Your task to perform on an android device: change timer sound Image 0: 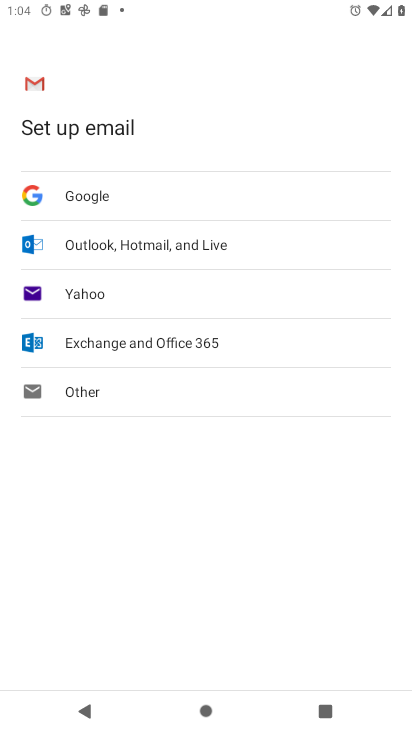
Step 0: press home button
Your task to perform on an android device: change timer sound Image 1: 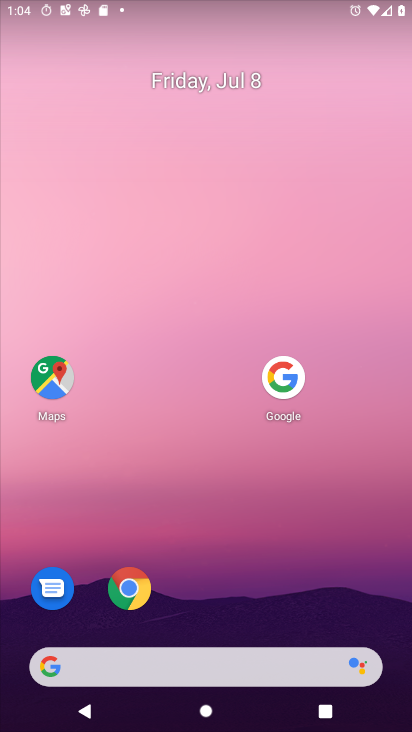
Step 1: drag from (172, 620) to (359, 71)
Your task to perform on an android device: change timer sound Image 2: 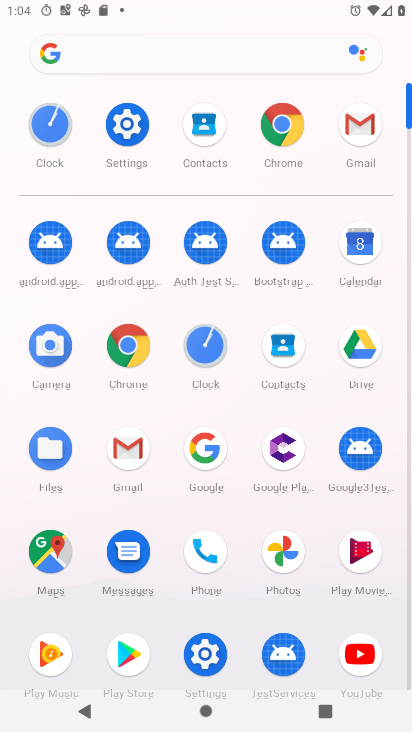
Step 2: click (214, 334)
Your task to perform on an android device: change timer sound Image 3: 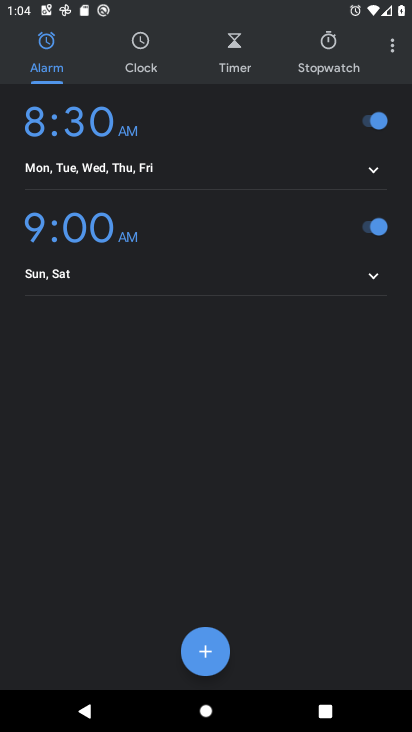
Step 3: click (392, 45)
Your task to perform on an android device: change timer sound Image 4: 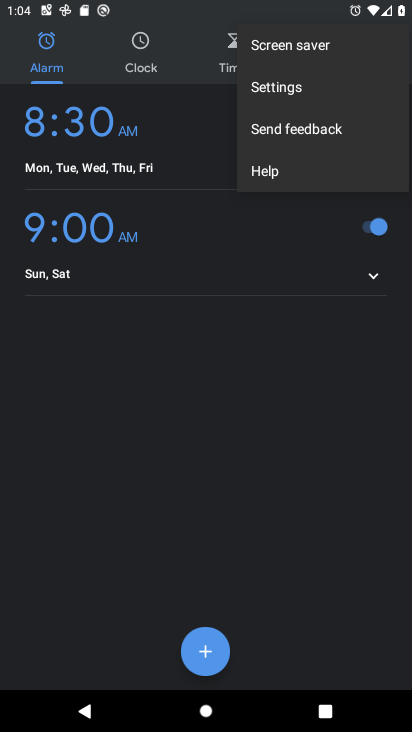
Step 4: click (297, 89)
Your task to perform on an android device: change timer sound Image 5: 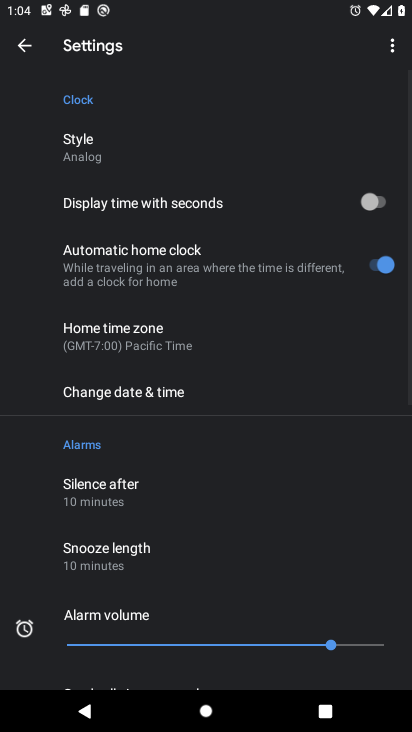
Step 5: drag from (136, 610) to (276, 126)
Your task to perform on an android device: change timer sound Image 6: 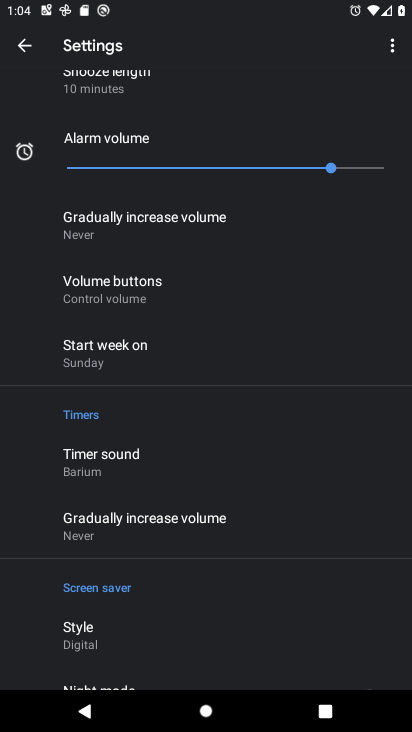
Step 6: click (101, 462)
Your task to perform on an android device: change timer sound Image 7: 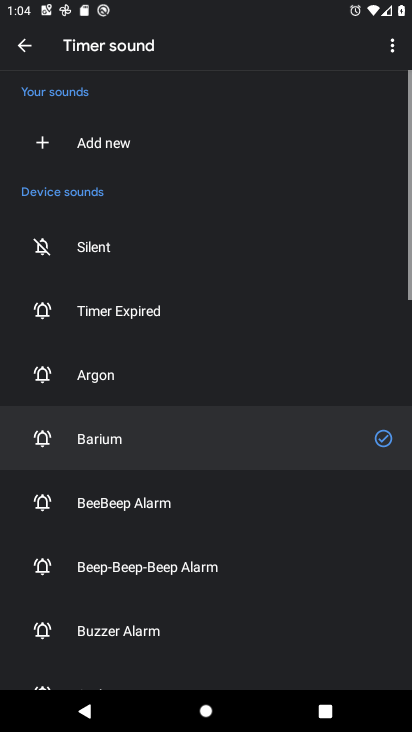
Step 7: click (110, 308)
Your task to perform on an android device: change timer sound Image 8: 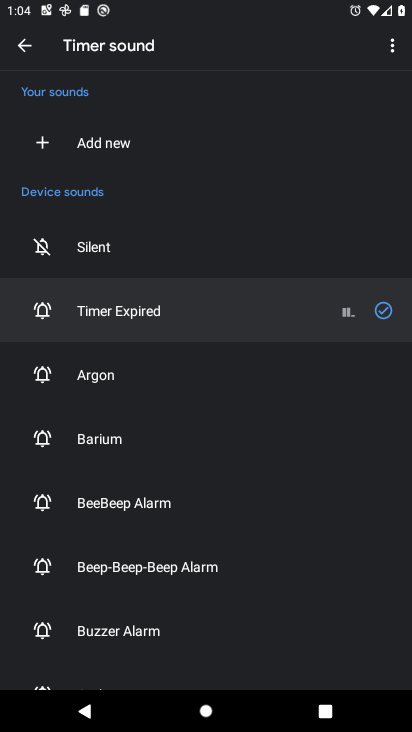
Step 8: task complete